Your task to perform on an android device: install app "DoorDash - Food Delivery" Image 0: 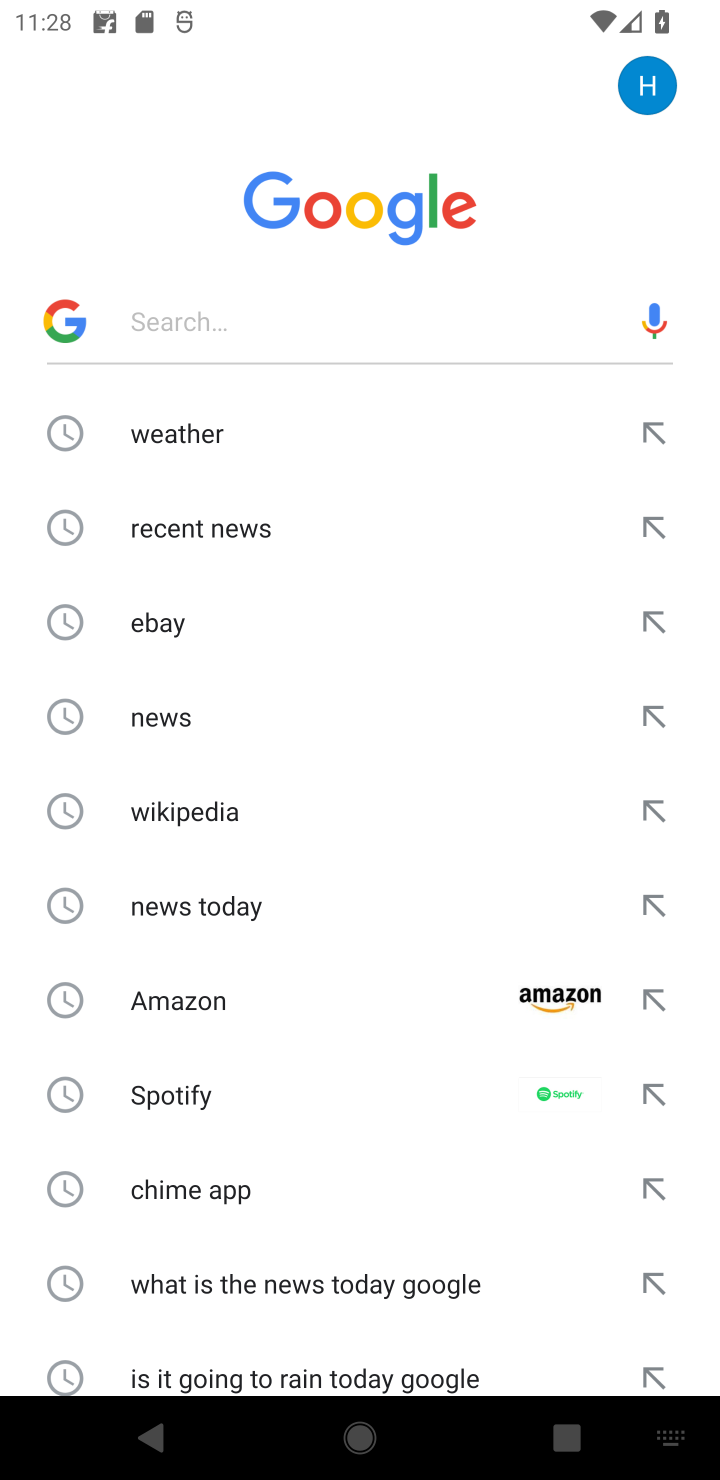
Step 0: press back button
Your task to perform on an android device: install app "DoorDash - Food Delivery" Image 1: 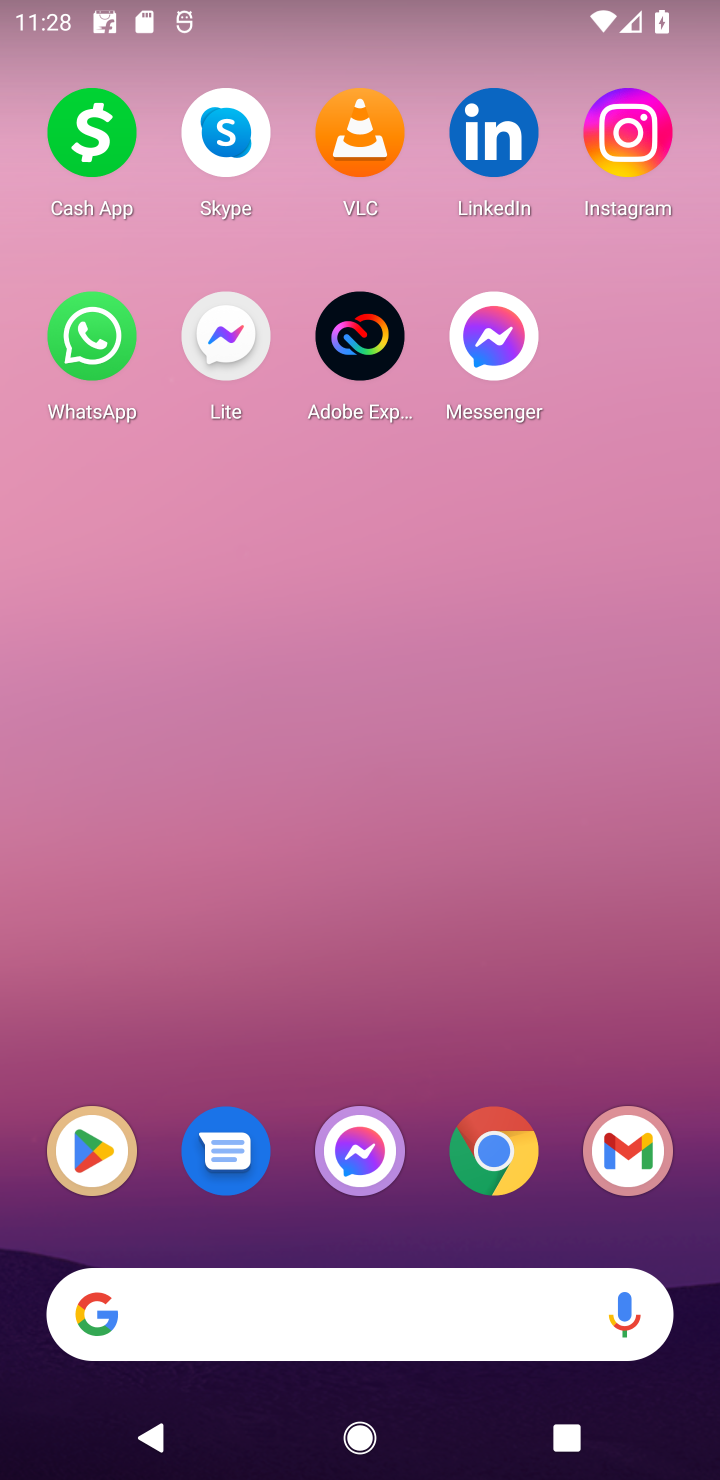
Step 1: click (106, 1131)
Your task to perform on an android device: install app "DoorDash - Food Delivery" Image 2: 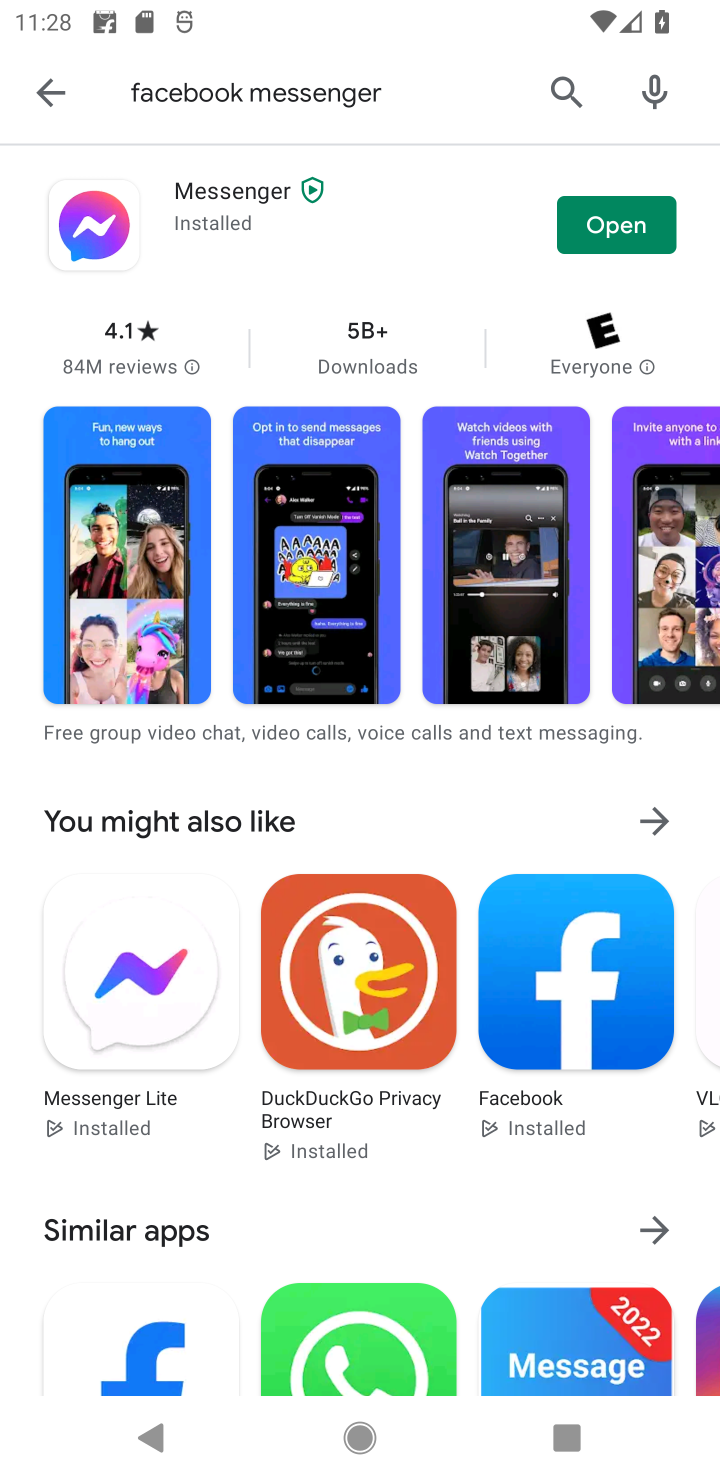
Step 2: click (554, 107)
Your task to perform on an android device: install app "DoorDash - Food Delivery" Image 3: 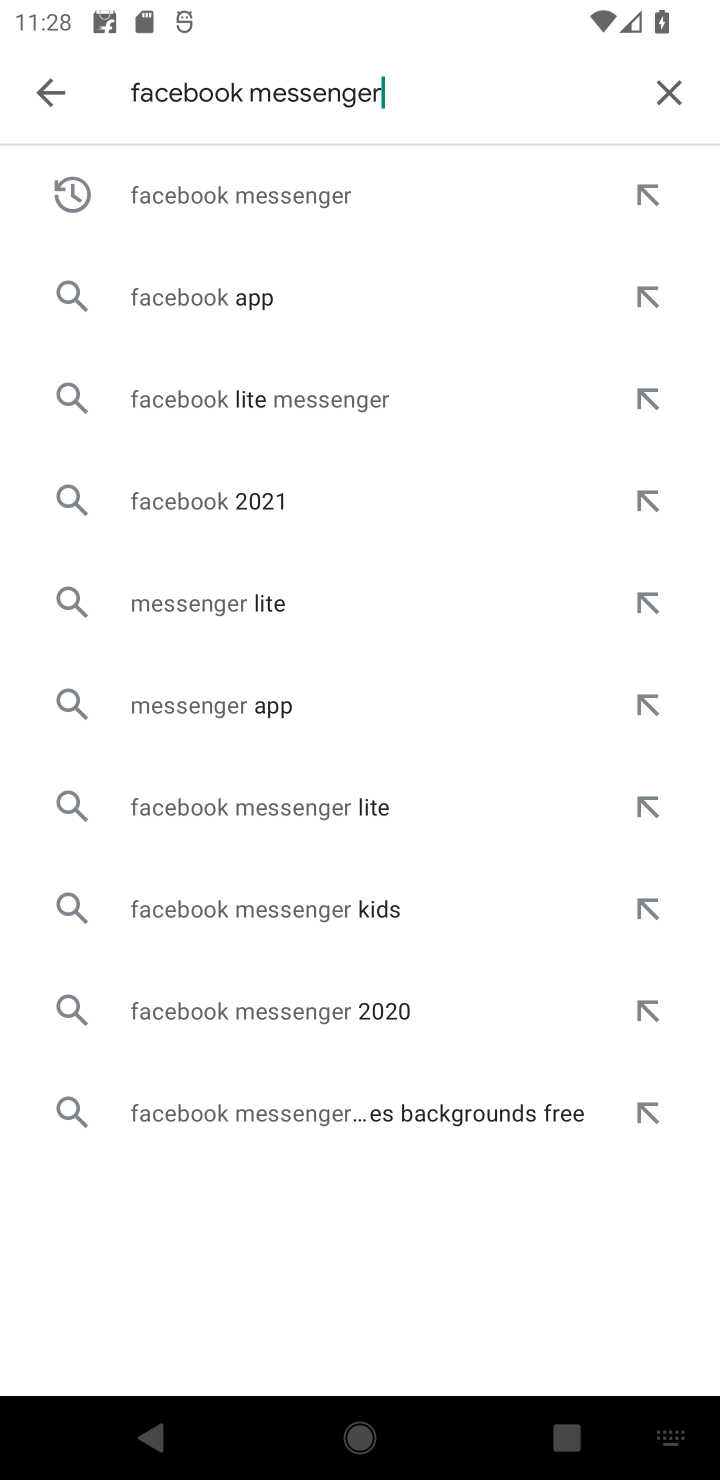
Step 3: click (675, 90)
Your task to perform on an android device: install app "DoorDash - Food Delivery" Image 4: 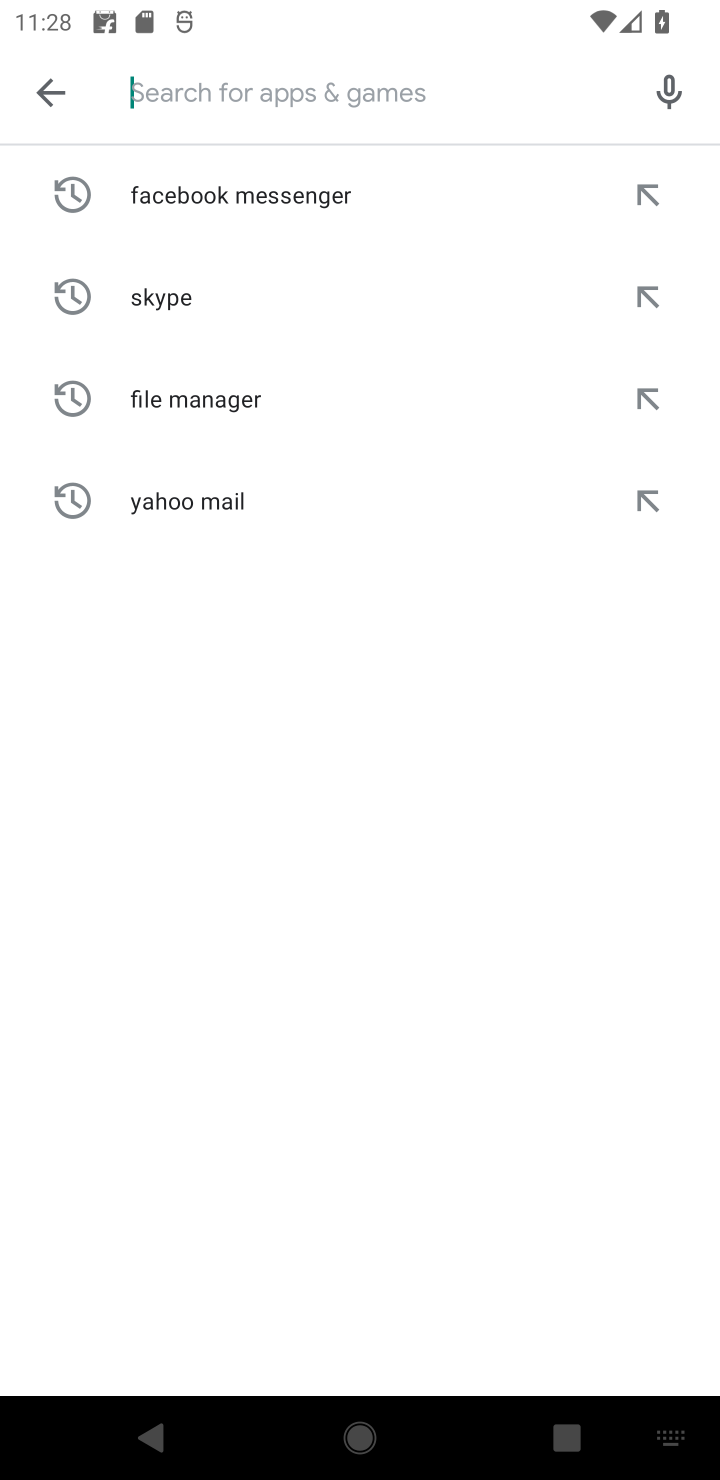
Step 4: type "DoorDash - Food Delivery"
Your task to perform on an android device: install app "DoorDash - Food Delivery" Image 5: 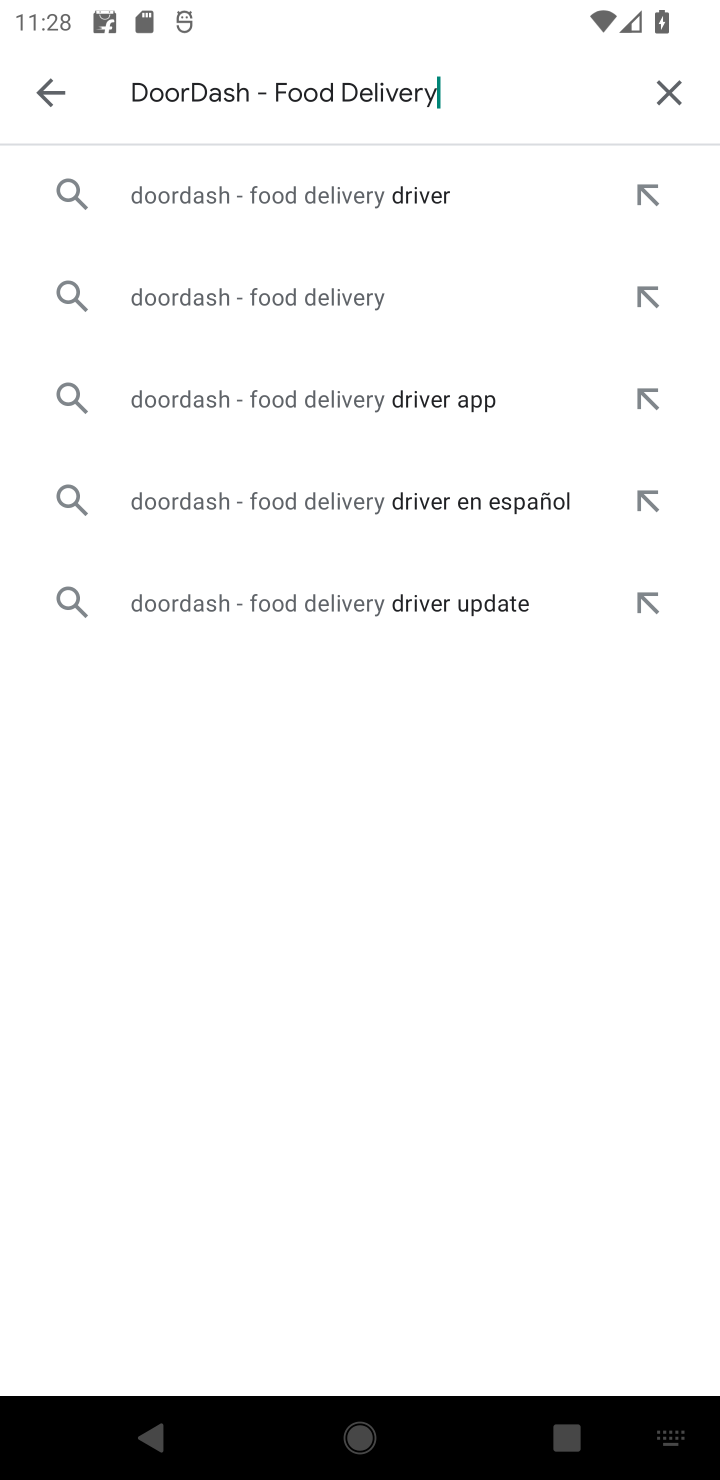
Step 5: click (287, 170)
Your task to perform on an android device: install app "DoorDash - Food Delivery" Image 6: 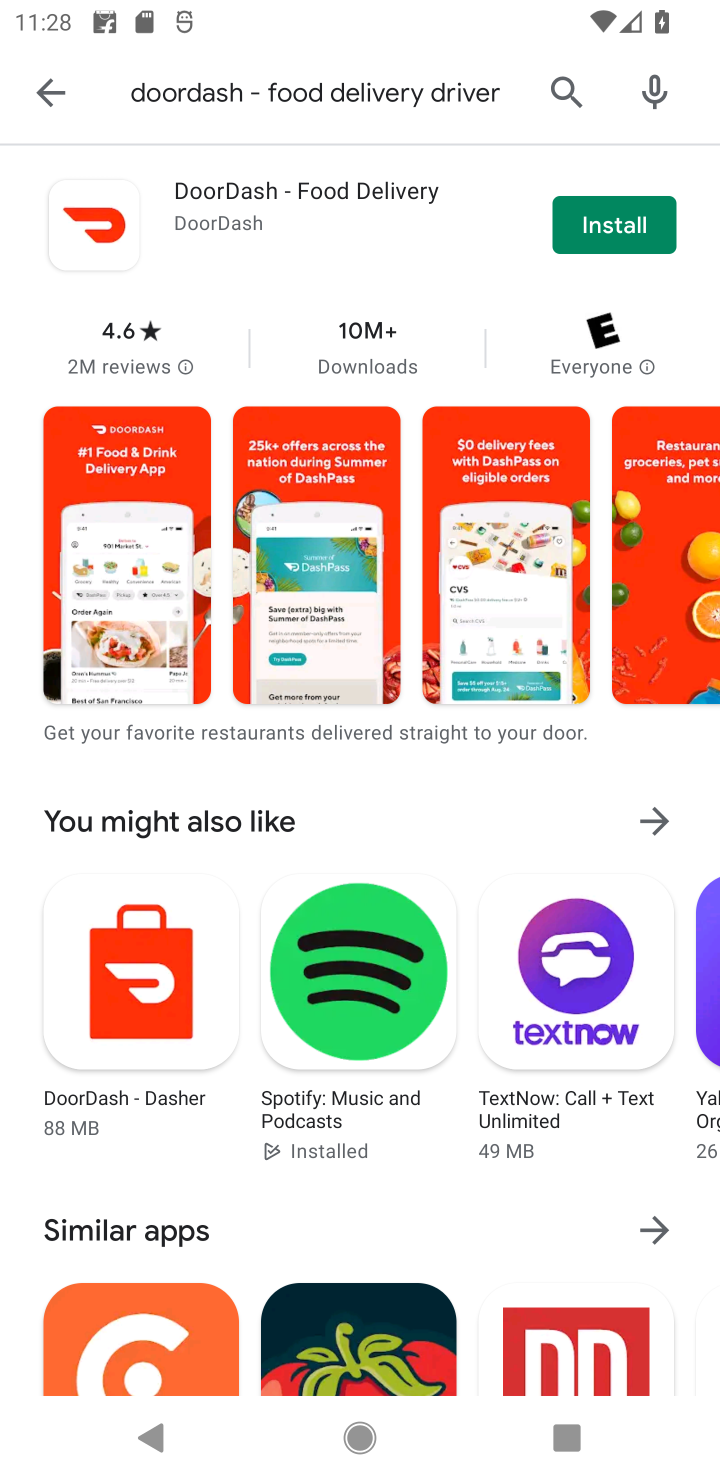
Step 6: click (592, 232)
Your task to perform on an android device: install app "DoorDash - Food Delivery" Image 7: 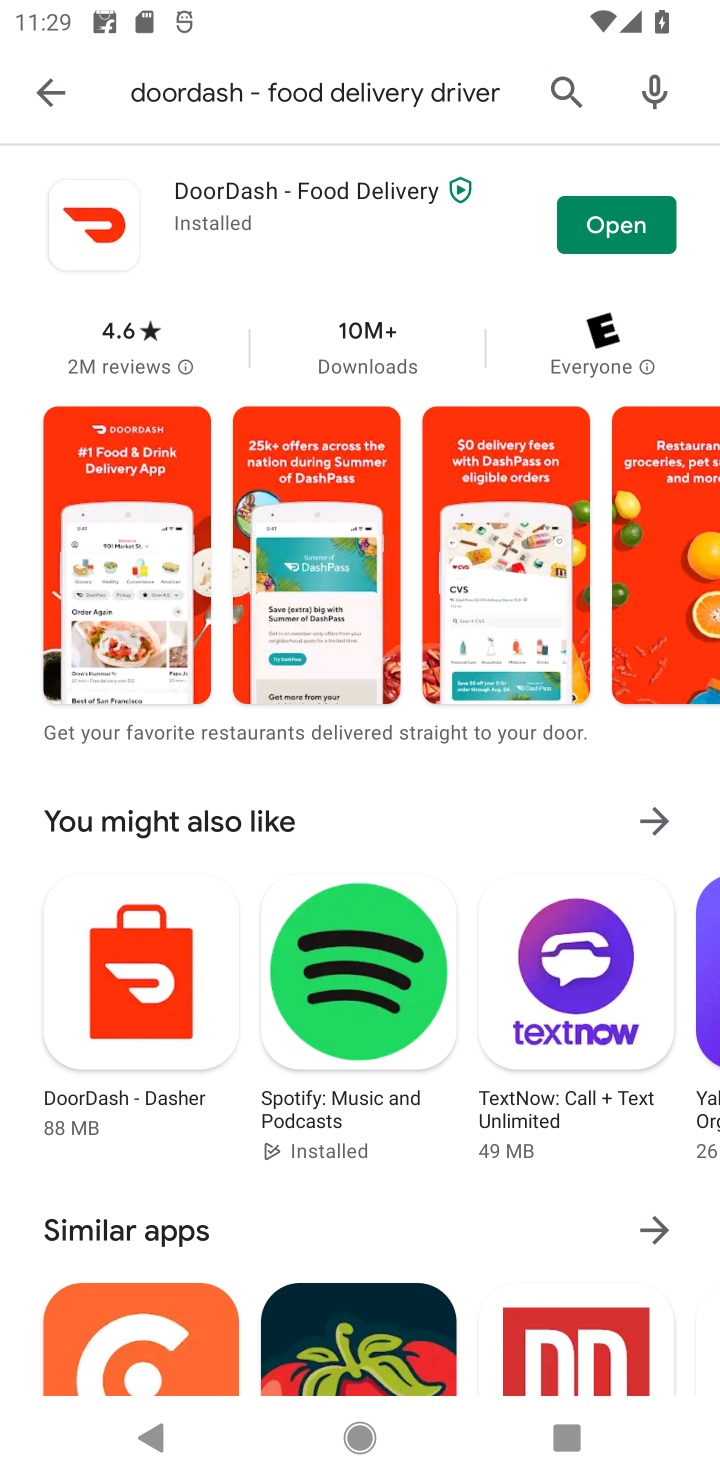
Step 7: task complete